Your task to perform on an android device: clear history in the chrome app Image 0: 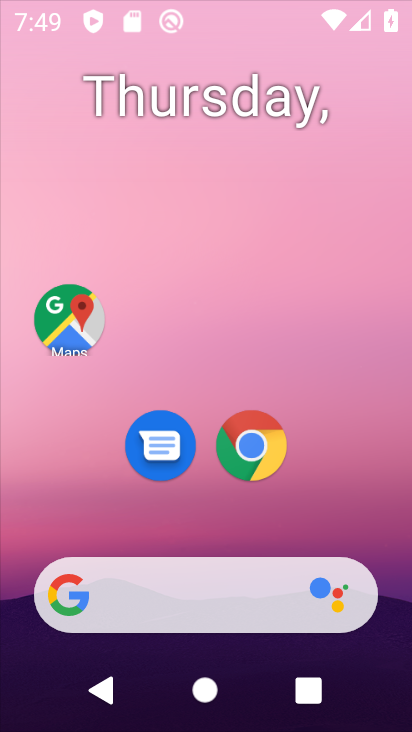
Step 0: click (318, 115)
Your task to perform on an android device: clear history in the chrome app Image 1: 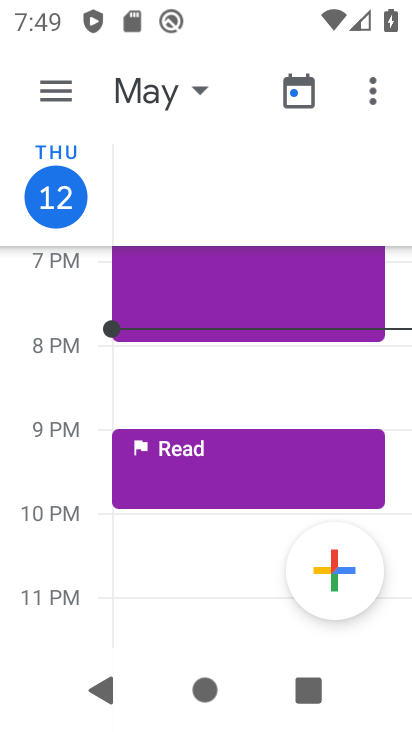
Step 1: drag from (200, 511) to (269, 96)
Your task to perform on an android device: clear history in the chrome app Image 2: 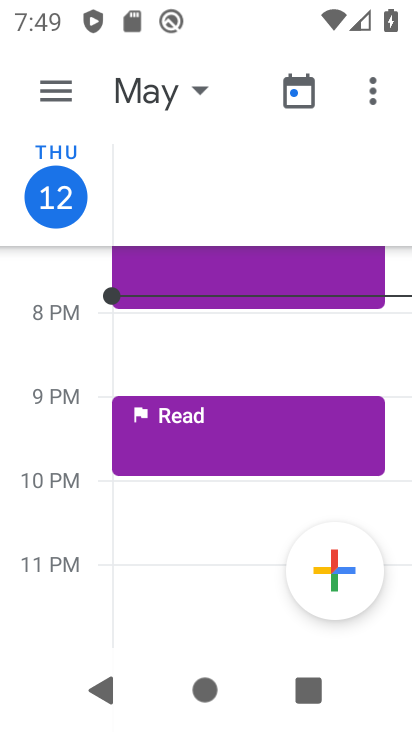
Step 2: drag from (224, 341) to (239, 603)
Your task to perform on an android device: clear history in the chrome app Image 3: 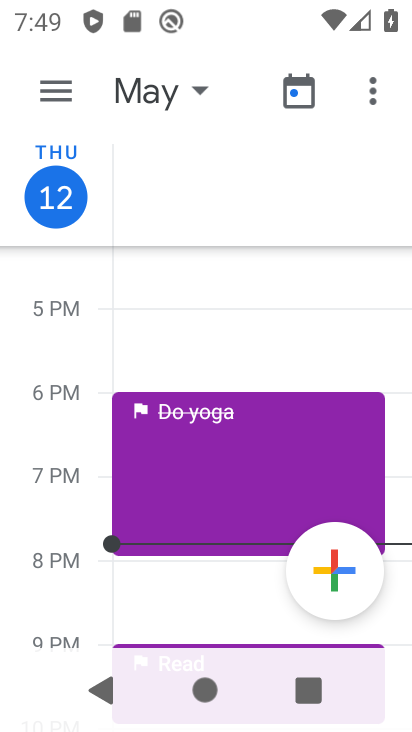
Step 3: press home button
Your task to perform on an android device: clear history in the chrome app Image 4: 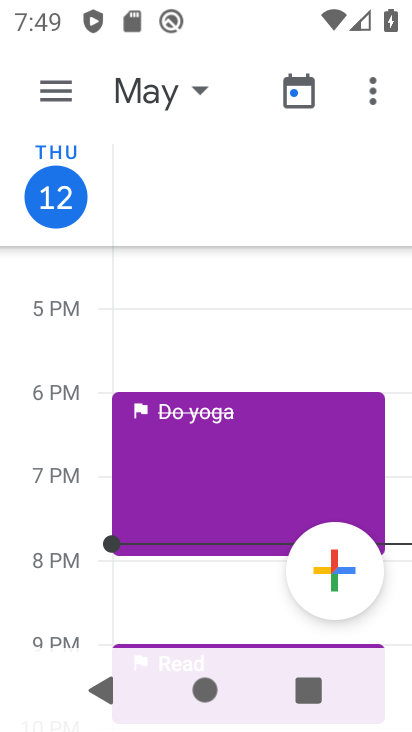
Step 4: press home button
Your task to perform on an android device: clear history in the chrome app Image 5: 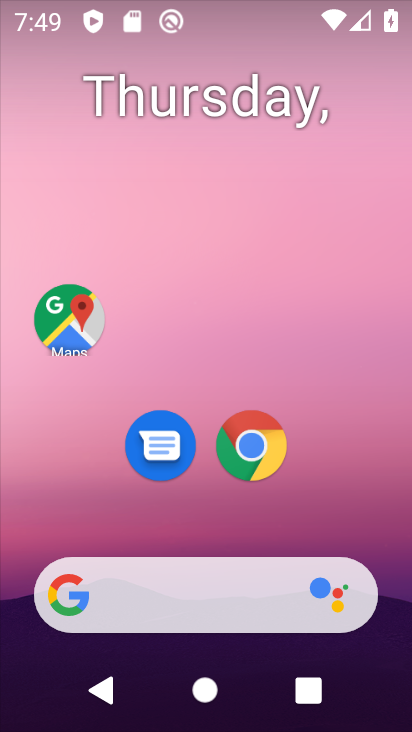
Step 5: drag from (209, 607) to (302, 227)
Your task to perform on an android device: clear history in the chrome app Image 6: 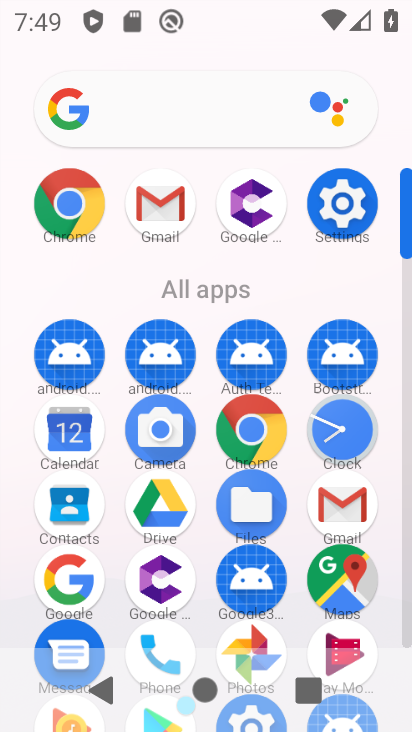
Step 6: click (245, 424)
Your task to perform on an android device: clear history in the chrome app Image 7: 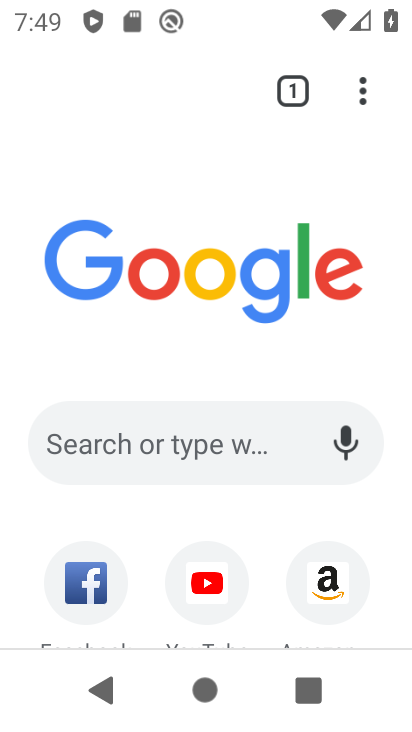
Step 7: drag from (369, 82) to (214, 434)
Your task to perform on an android device: clear history in the chrome app Image 8: 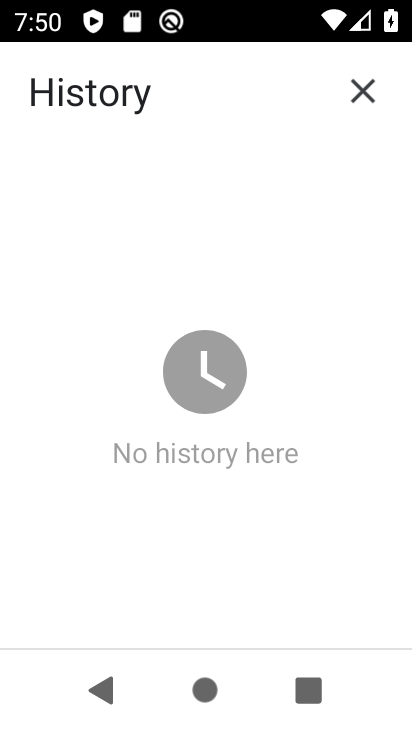
Step 8: drag from (201, 491) to (243, 199)
Your task to perform on an android device: clear history in the chrome app Image 9: 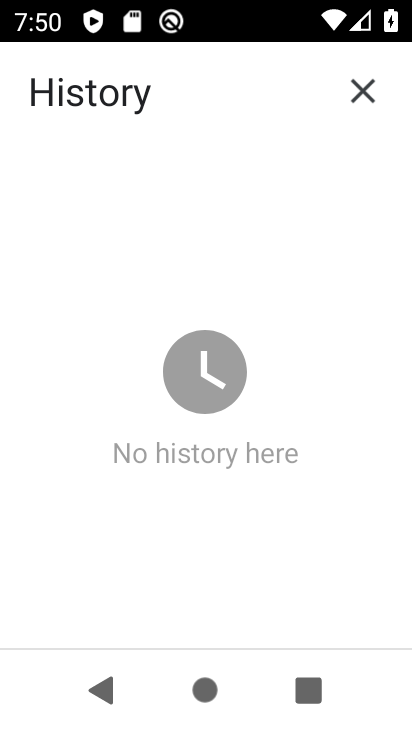
Step 9: click (211, 147)
Your task to perform on an android device: clear history in the chrome app Image 10: 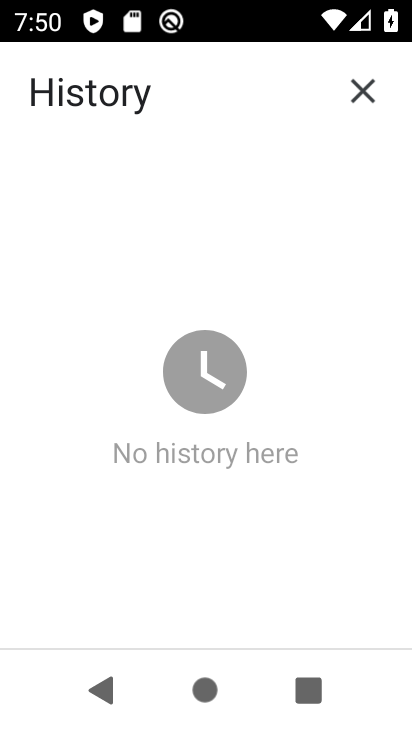
Step 10: drag from (163, 366) to (260, 402)
Your task to perform on an android device: clear history in the chrome app Image 11: 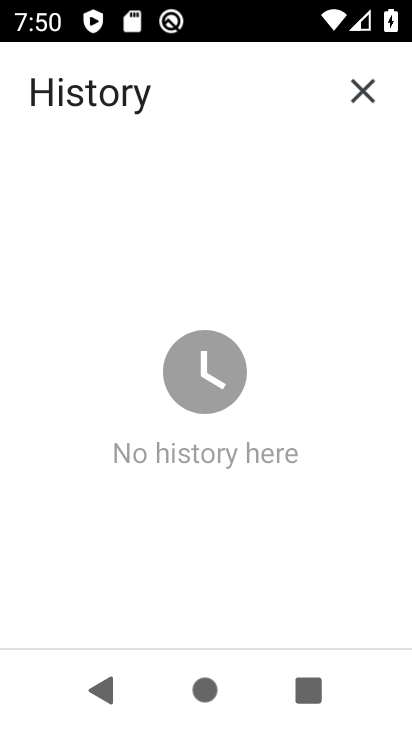
Step 11: drag from (246, 359) to (179, 339)
Your task to perform on an android device: clear history in the chrome app Image 12: 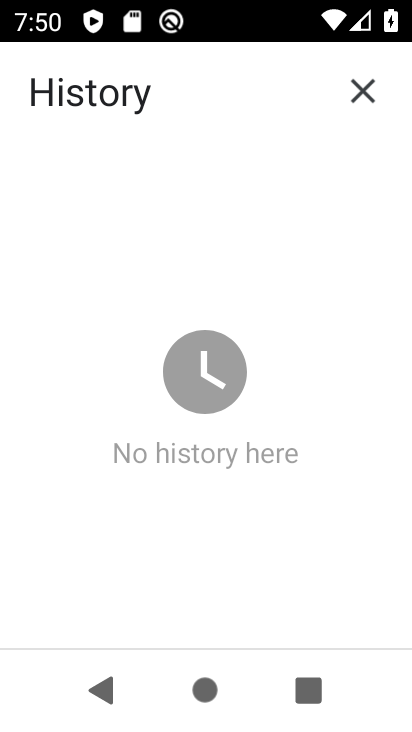
Step 12: click (260, 365)
Your task to perform on an android device: clear history in the chrome app Image 13: 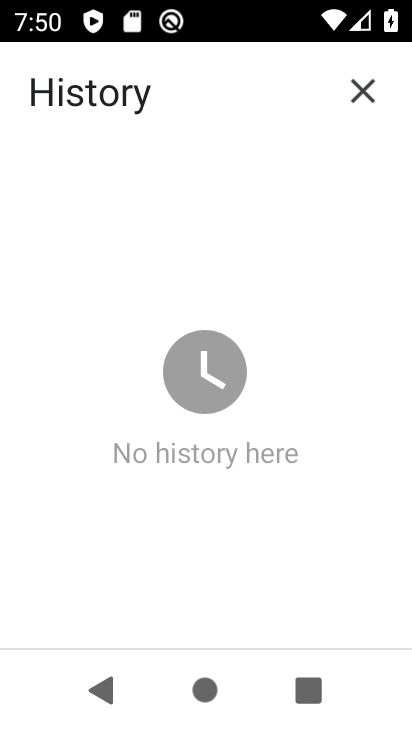
Step 13: click (147, 341)
Your task to perform on an android device: clear history in the chrome app Image 14: 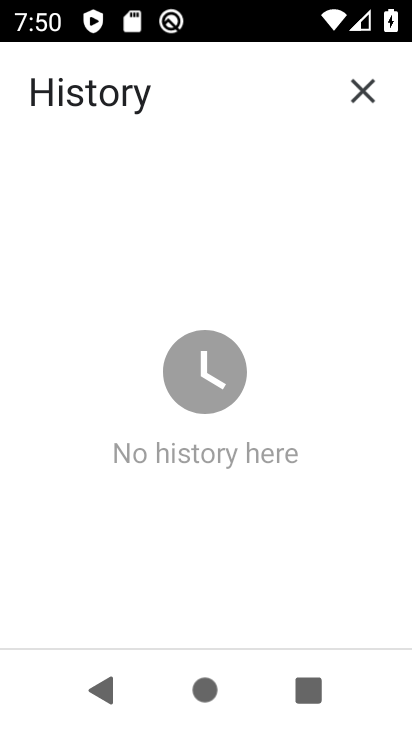
Step 14: click (191, 359)
Your task to perform on an android device: clear history in the chrome app Image 15: 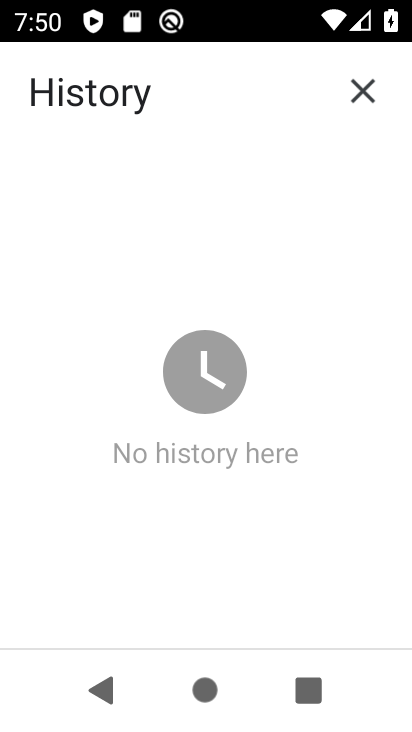
Step 15: click (212, 358)
Your task to perform on an android device: clear history in the chrome app Image 16: 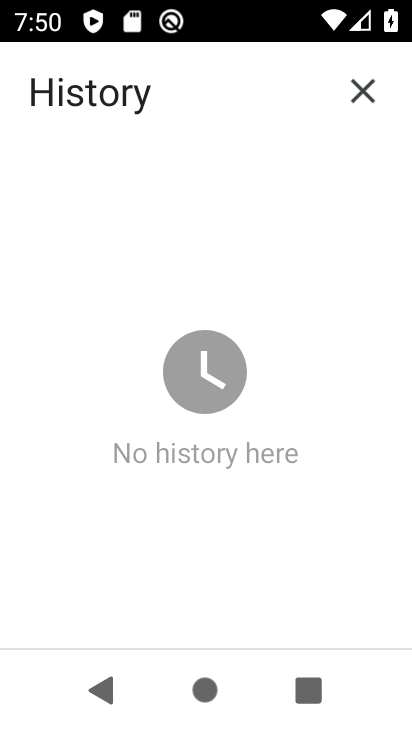
Step 16: click (212, 357)
Your task to perform on an android device: clear history in the chrome app Image 17: 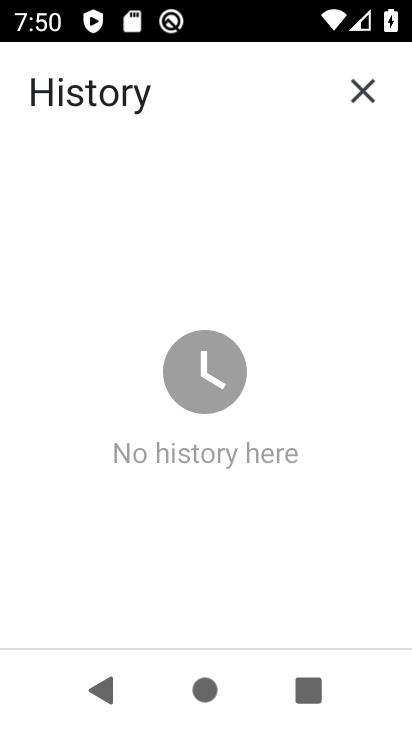
Step 17: click (42, 536)
Your task to perform on an android device: clear history in the chrome app Image 18: 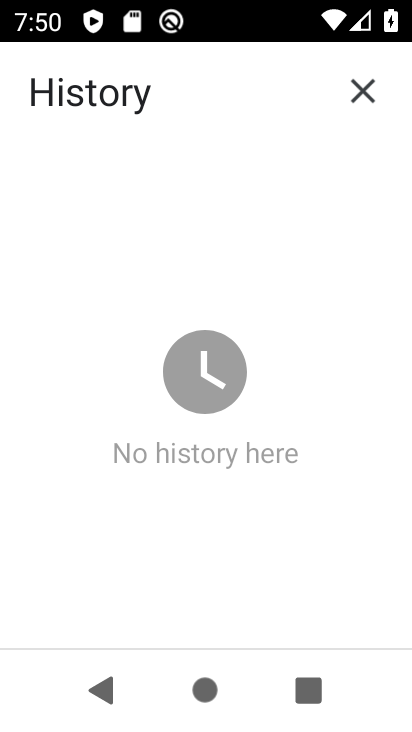
Step 18: click (138, 501)
Your task to perform on an android device: clear history in the chrome app Image 19: 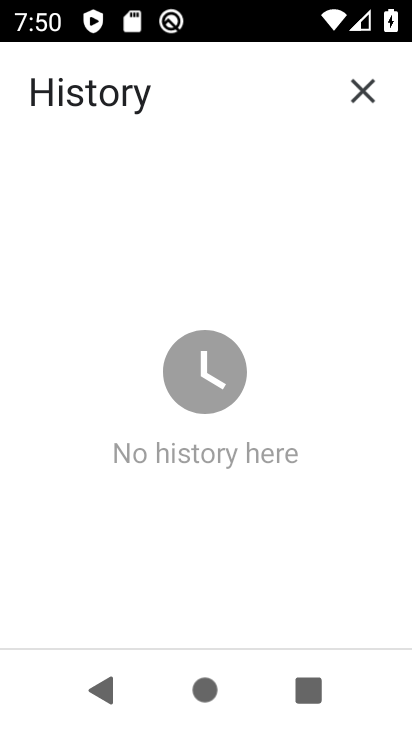
Step 19: click (144, 500)
Your task to perform on an android device: clear history in the chrome app Image 20: 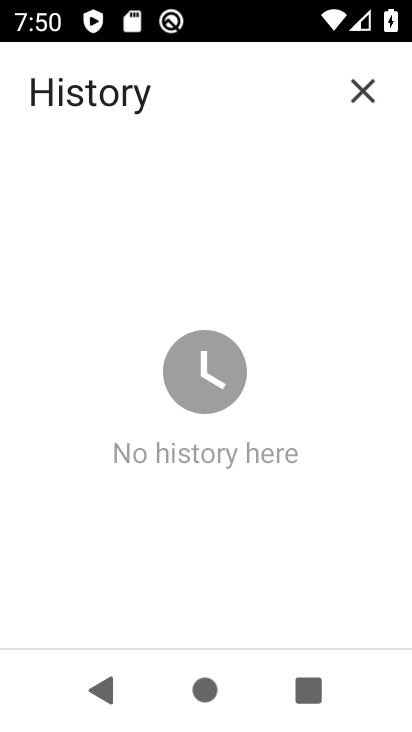
Step 20: click (158, 441)
Your task to perform on an android device: clear history in the chrome app Image 21: 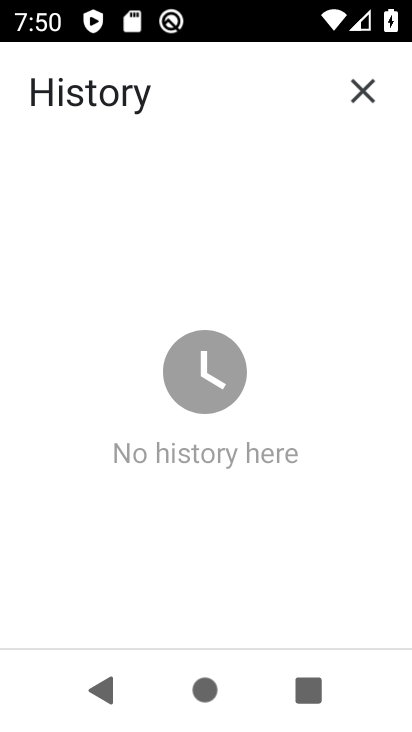
Step 21: click (193, 374)
Your task to perform on an android device: clear history in the chrome app Image 22: 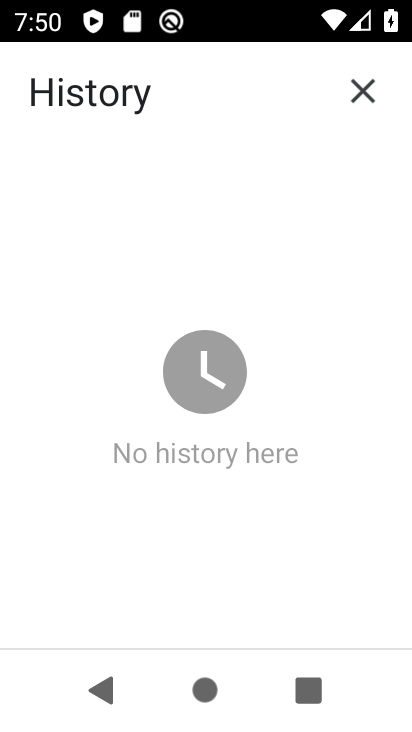
Step 22: click (194, 370)
Your task to perform on an android device: clear history in the chrome app Image 23: 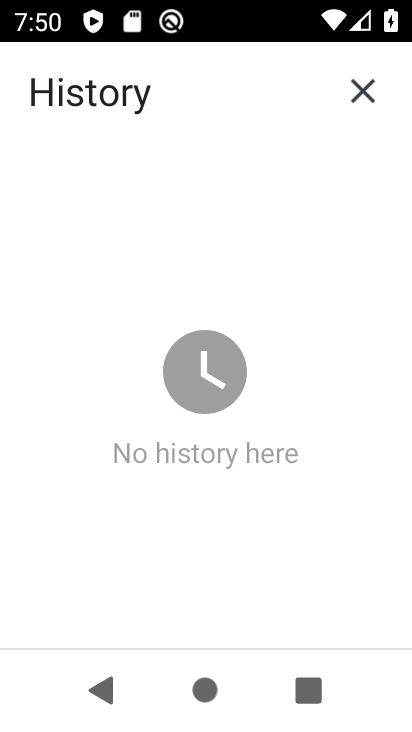
Step 23: click (204, 487)
Your task to perform on an android device: clear history in the chrome app Image 24: 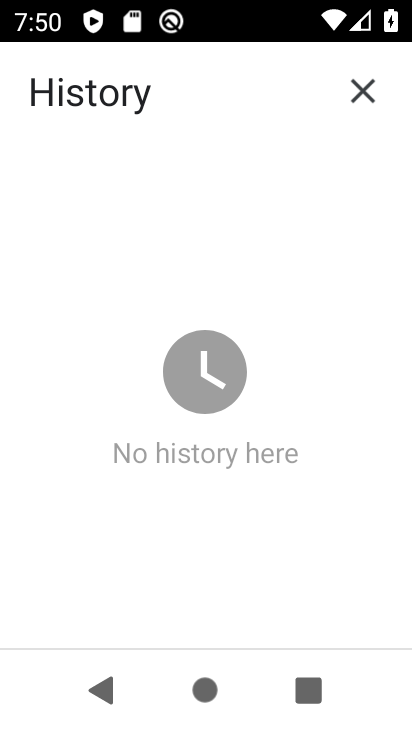
Step 24: click (179, 510)
Your task to perform on an android device: clear history in the chrome app Image 25: 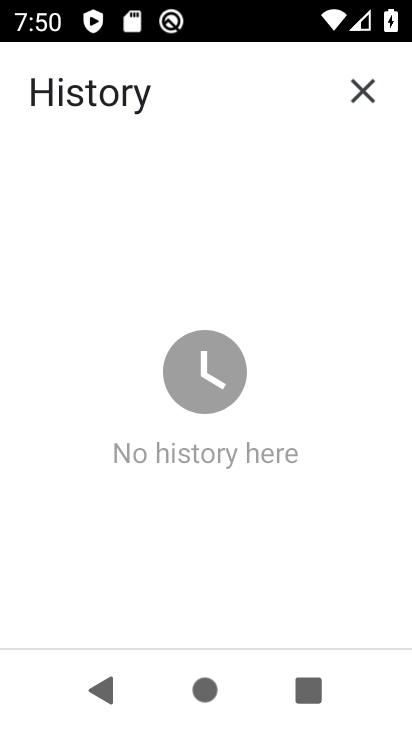
Step 25: click (200, 457)
Your task to perform on an android device: clear history in the chrome app Image 26: 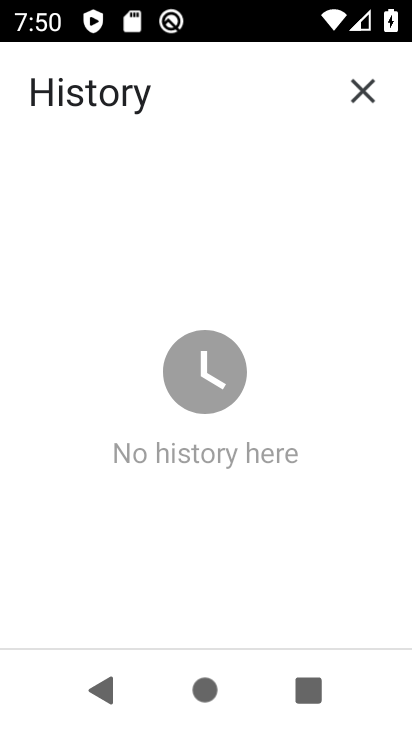
Step 26: drag from (209, 465) to (224, 382)
Your task to perform on an android device: clear history in the chrome app Image 27: 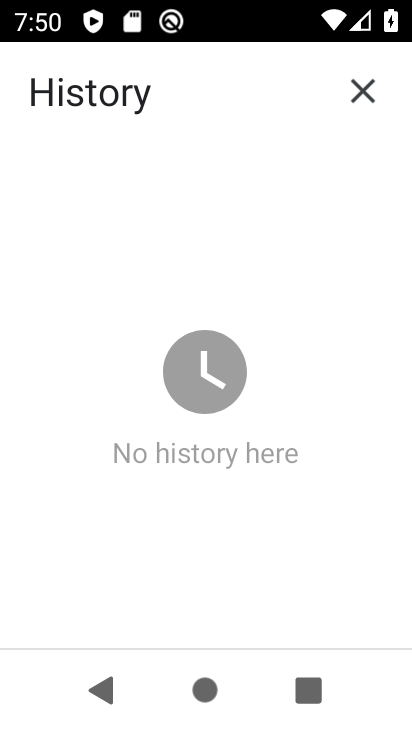
Step 27: click (224, 371)
Your task to perform on an android device: clear history in the chrome app Image 28: 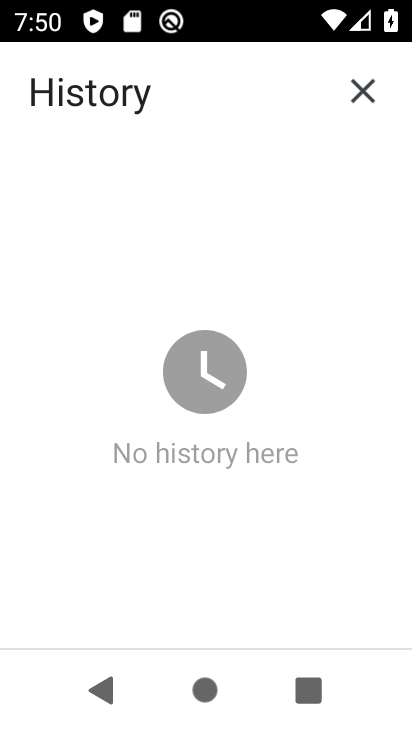
Step 28: click (224, 371)
Your task to perform on an android device: clear history in the chrome app Image 29: 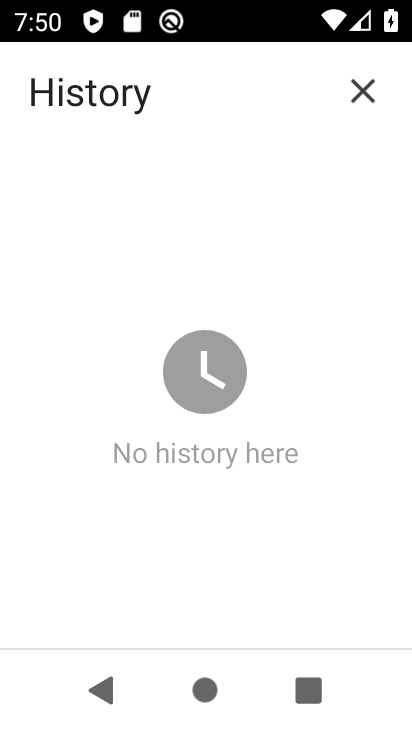
Step 29: click (266, 525)
Your task to perform on an android device: clear history in the chrome app Image 30: 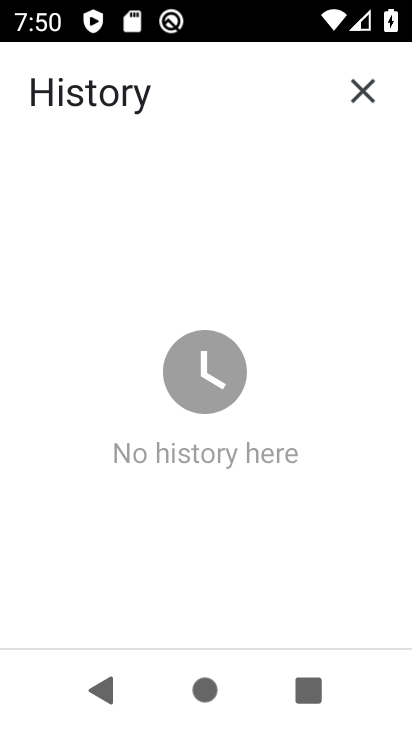
Step 30: task complete